Your task to perform on an android device: toggle pop-ups in chrome Image 0: 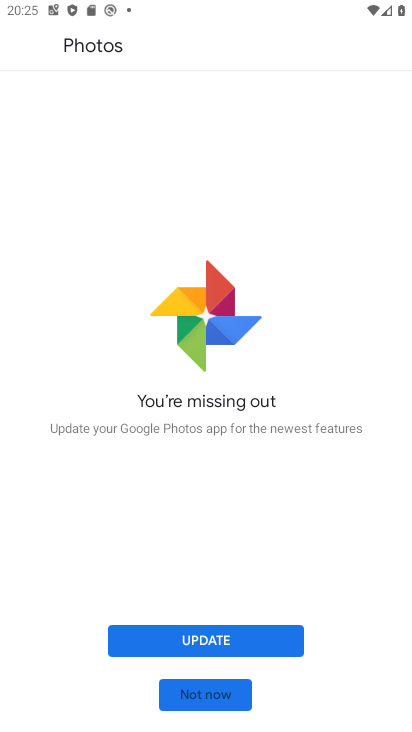
Step 0: press home button
Your task to perform on an android device: toggle pop-ups in chrome Image 1: 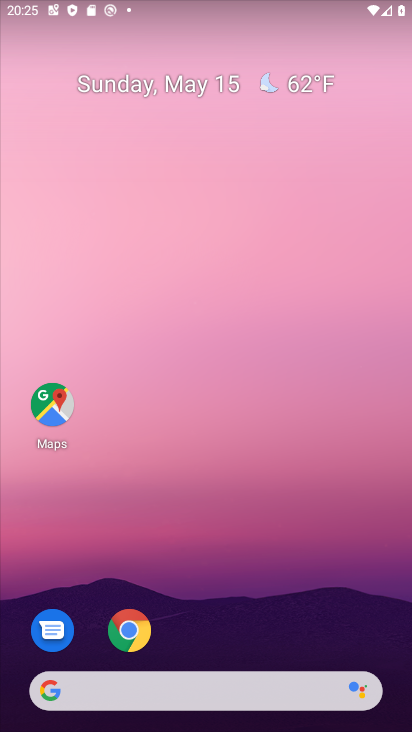
Step 1: click (134, 627)
Your task to perform on an android device: toggle pop-ups in chrome Image 2: 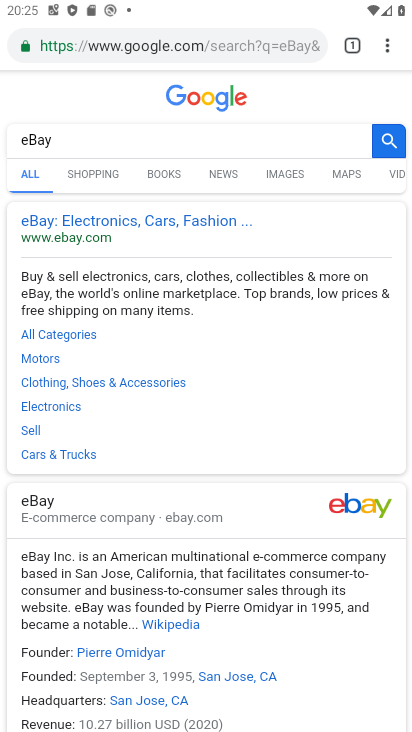
Step 2: click (387, 44)
Your task to perform on an android device: toggle pop-ups in chrome Image 3: 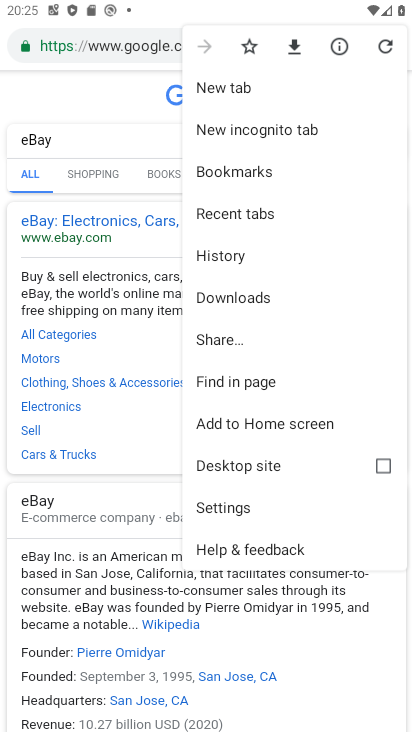
Step 3: click (220, 512)
Your task to perform on an android device: toggle pop-ups in chrome Image 4: 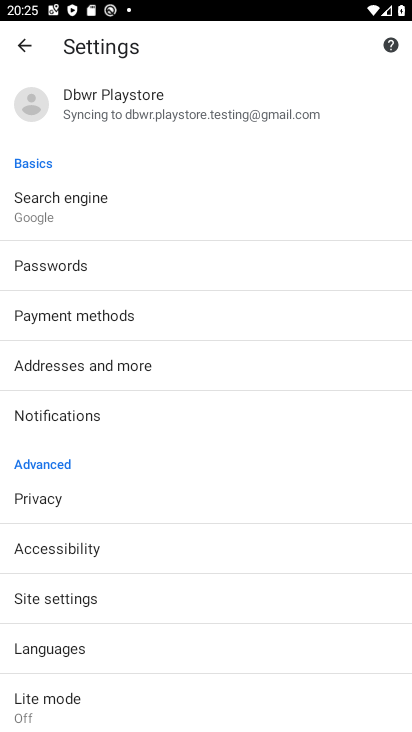
Step 4: click (75, 604)
Your task to perform on an android device: toggle pop-ups in chrome Image 5: 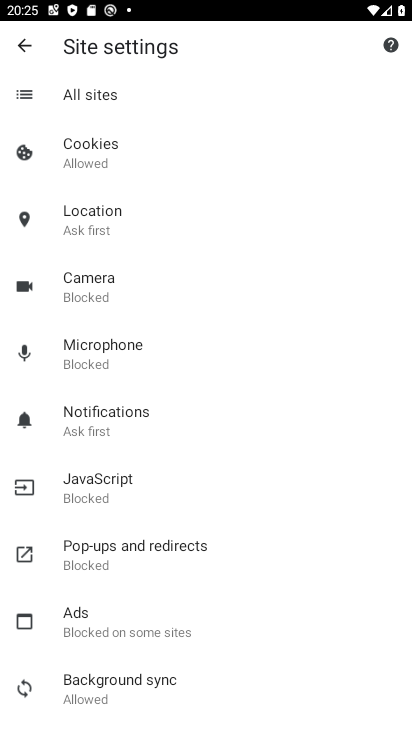
Step 5: click (103, 550)
Your task to perform on an android device: toggle pop-ups in chrome Image 6: 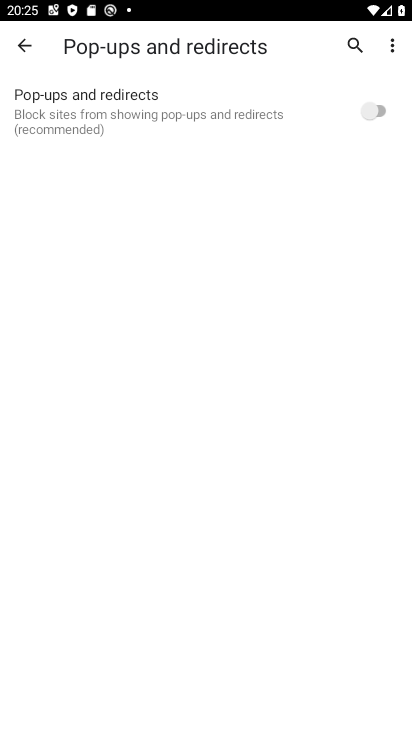
Step 6: click (396, 109)
Your task to perform on an android device: toggle pop-ups in chrome Image 7: 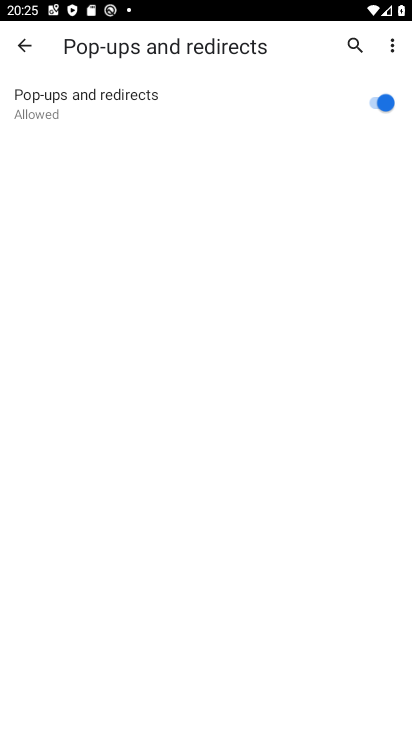
Step 7: task complete